Your task to perform on an android device: Search for Mexican restaurants on Maps Image 0: 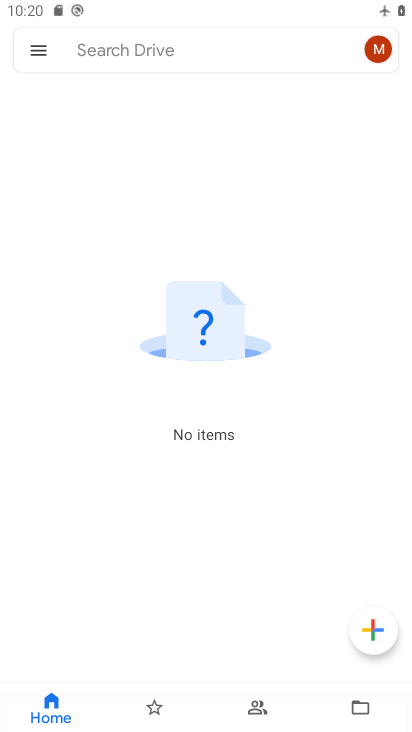
Step 0: press back button
Your task to perform on an android device: Search for Mexican restaurants on Maps Image 1: 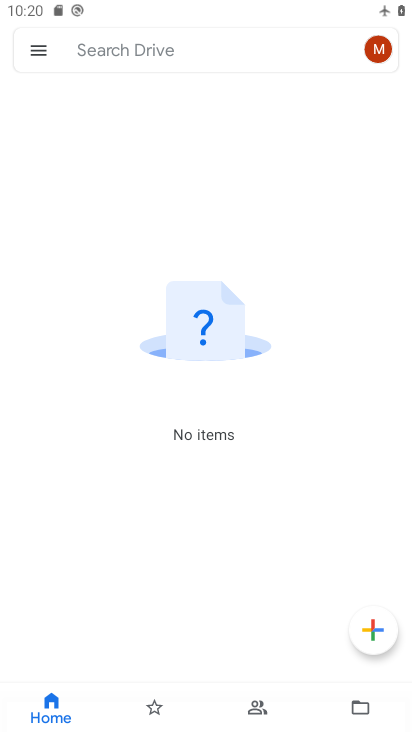
Step 1: press back button
Your task to perform on an android device: Search for Mexican restaurants on Maps Image 2: 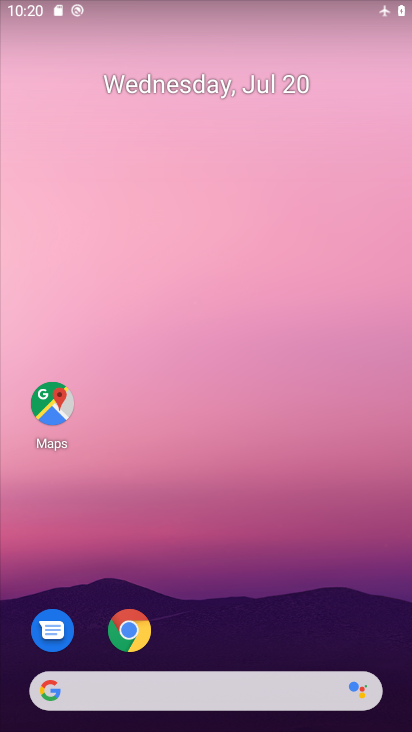
Step 2: drag from (257, 496) to (223, 183)
Your task to perform on an android device: Search for Mexican restaurants on Maps Image 3: 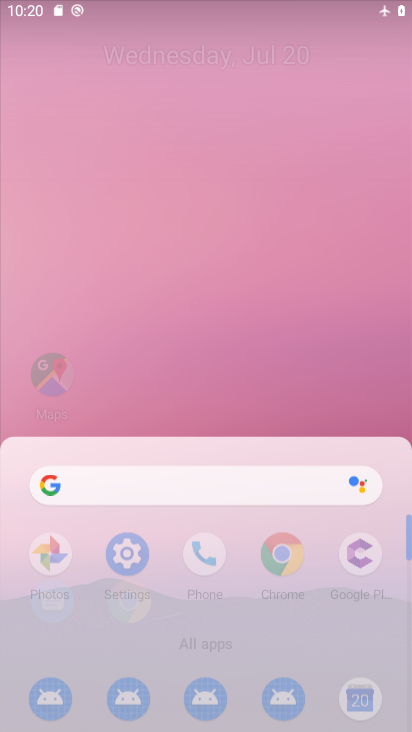
Step 3: drag from (213, 506) to (222, 161)
Your task to perform on an android device: Search for Mexican restaurants on Maps Image 4: 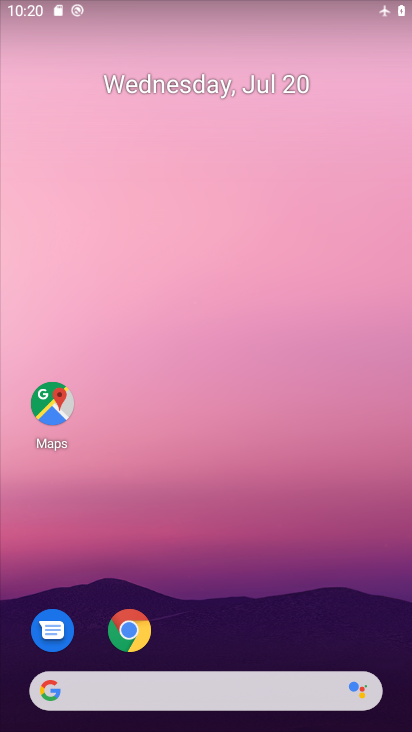
Step 4: drag from (225, 280) to (225, 91)
Your task to perform on an android device: Search for Mexican restaurants on Maps Image 5: 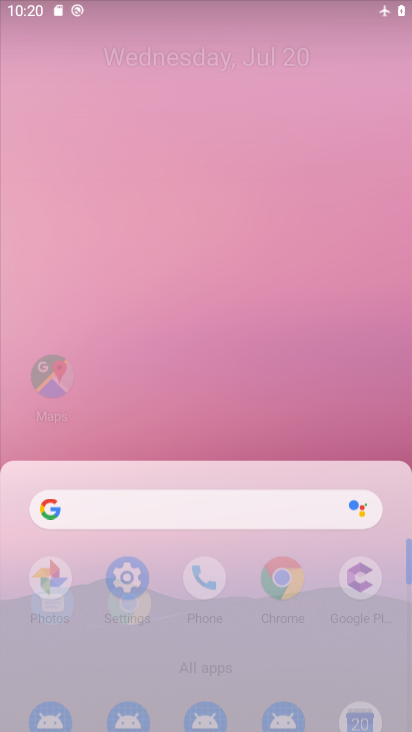
Step 5: click (165, 174)
Your task to perform on an android device: Search for Mexican restaurants on Maps Image 6: 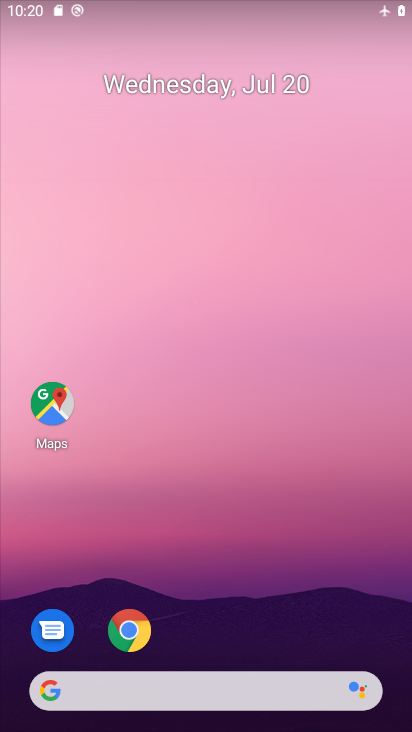
Step 6: drag from (175, 515) to (175, 199)
Your task to perform on an android device: Search for Mexican restaurants on Maps Image 7: 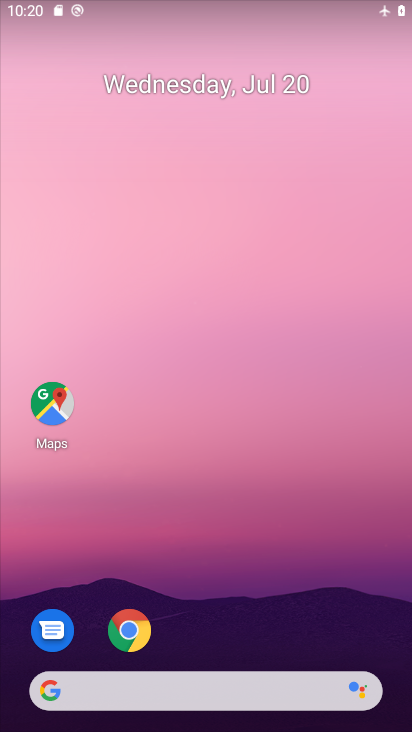
Step 7: drag from (177, 646) to (178, 242)
Your task to perform on an android device: Search for Mexican restaurants on Maps Image 8: 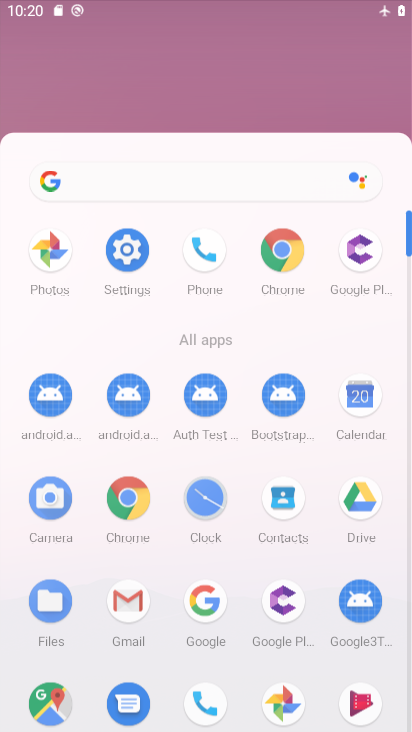
Step 8: drag from (216, 531) to (212, 102)
Your task to perform on an android device: Search for Mexican restaurants on Maps Image 9: 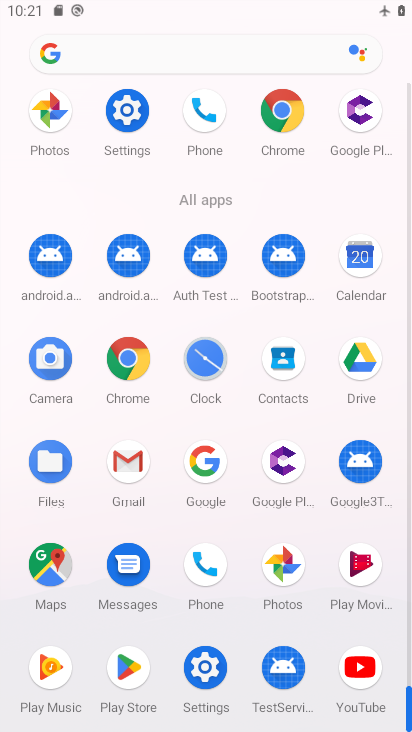
Step 9: click (63, 554)
Your task to perform on an android device: Search for Mexican restaurants on Maps Image 10: 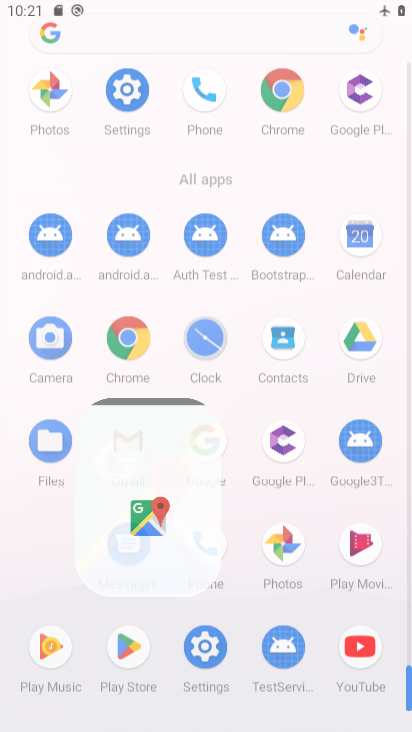
Step 10: click (57, 560)
Your task to perform on an android device: Search for Mexican restaurants on Maps Image 11: 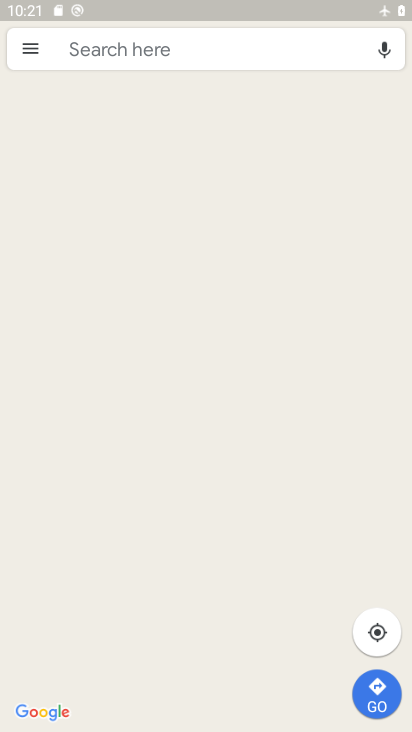
Step 11: click (68, 26)
Your task to perform on an android device: Search for Mexican restaurants on Maps Image 12: 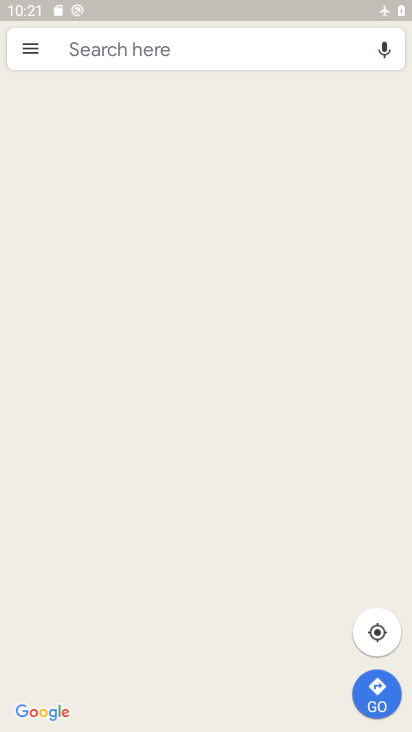
Step 12: click (82, 45)
Your task to perform on an android device: Search for Mexican restaurants on Maps Image 13: 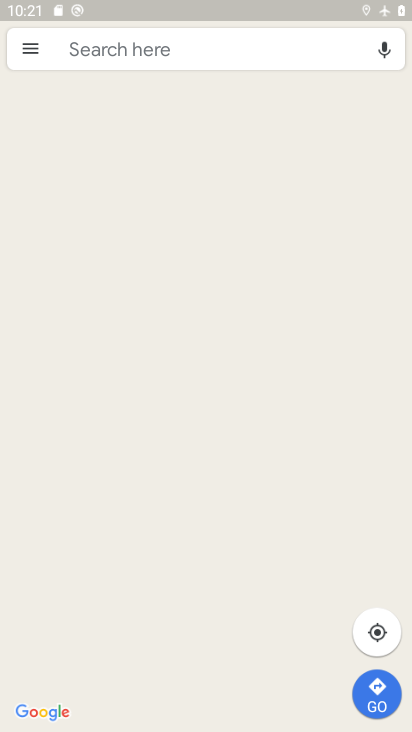
Step 13: click (89, 44)
Your task to perform on an android device: Search for Mexican restaurants on Maps Image 14: 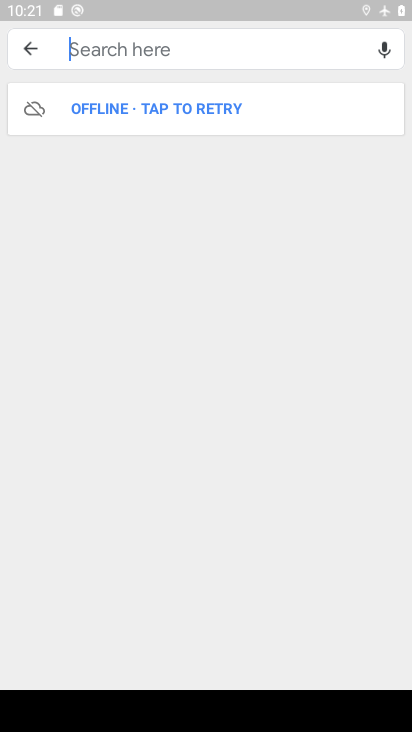
Step 14: type "mexican restaurants"
Your task to perform on an android device: Search for Mexican restaurants on Maps Image 15: 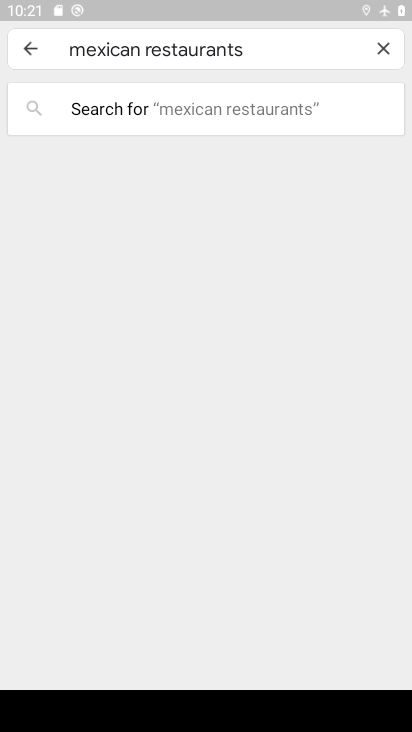
Step 15: click (225, 111)
Your task to perform on an android device: Search for Mexican restaurants on Maps Image 16: 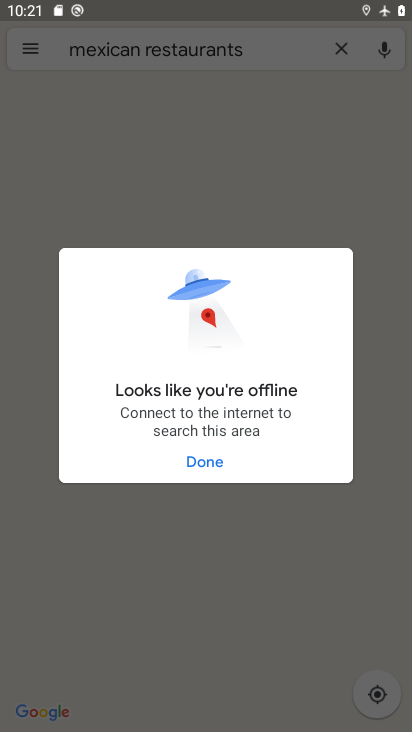
Step 16: task complete